Your task to perform on an android device: Go to display settings Image 0: 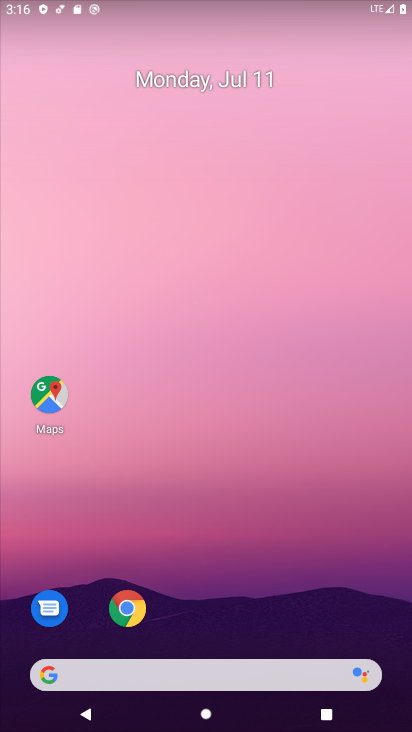
Step 0: drag from (189, 14) to (162, 478)
Your task to perform on an android device: Go to display settings Image 1: 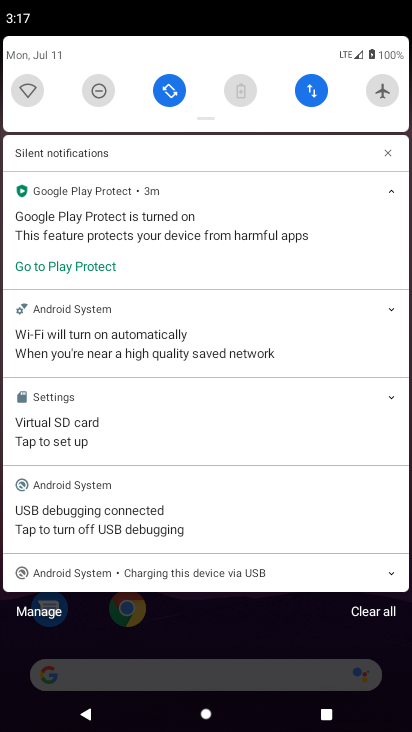
Step 1: drag from (214, 58) to (169, 522)
Your task to perform on an android device: Go to display settings Image 2: 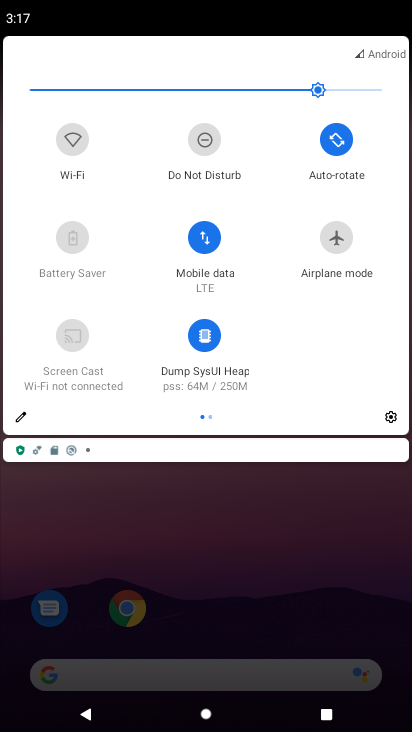
Step 2: click (393, 413)
Your task to perform on an android device: Go to display settings Image 3: 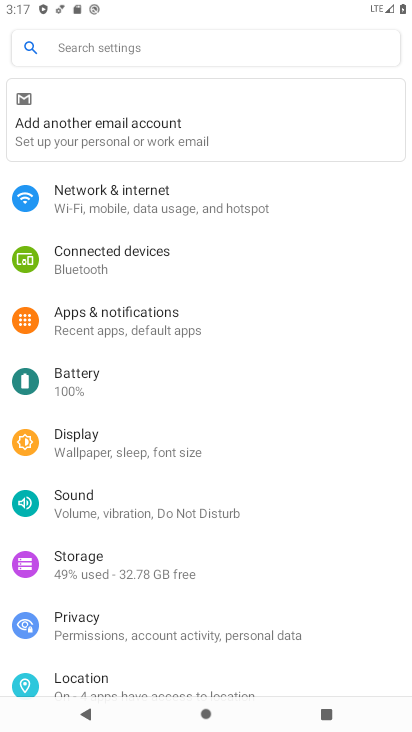
Step 3: click (123, 452)
Your task to perform on an android device: Go to display settings Image 4: 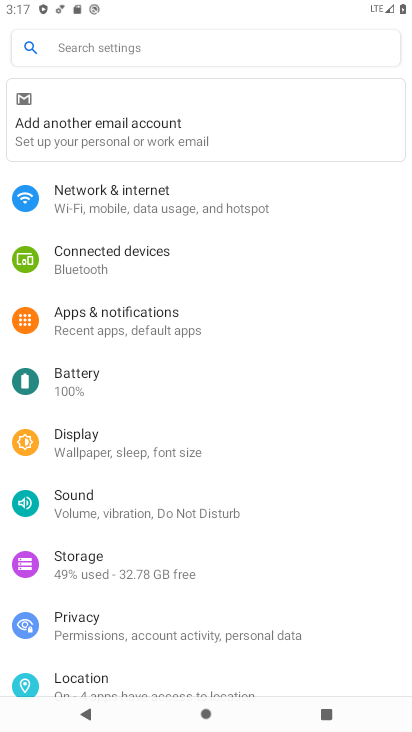
Step 4: click (123, 452)
Your task to perform on an android device: Go to display settings Image 5: 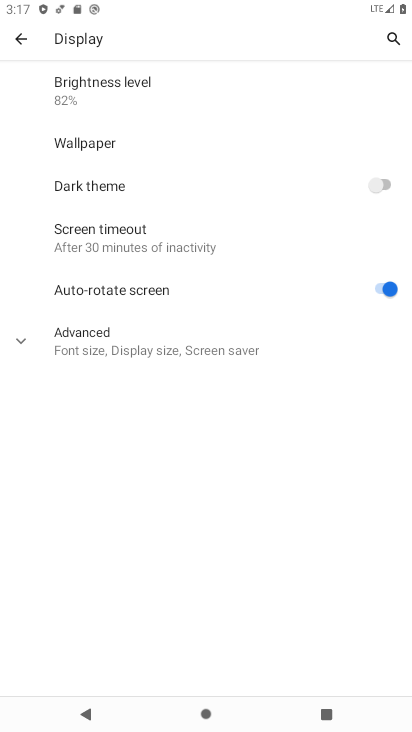
Step 5: task complete